Your task to perform on an android device: Go to Wikipedia Image 0: 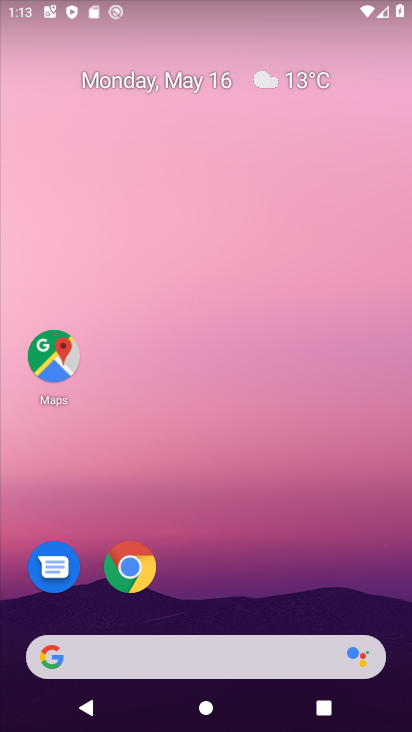
Step 0: click (128, 574)
Your task to perform on an android device: Go to Wikipedia Image 1: 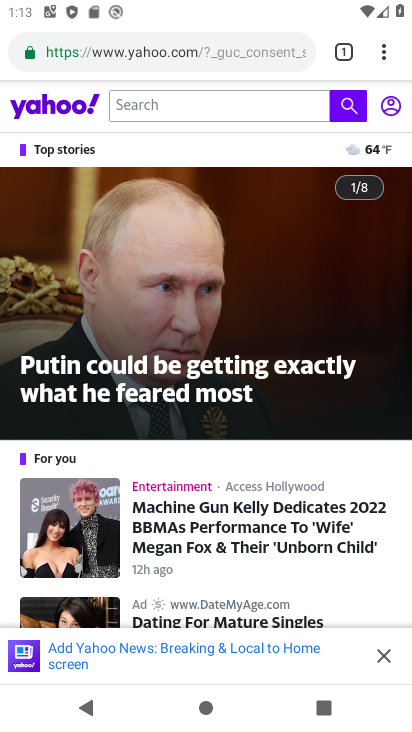
Step 1: drag from (378, 47) to (362, 116)
Your task to perform on an android device: Go to Wikipedia Image 2: 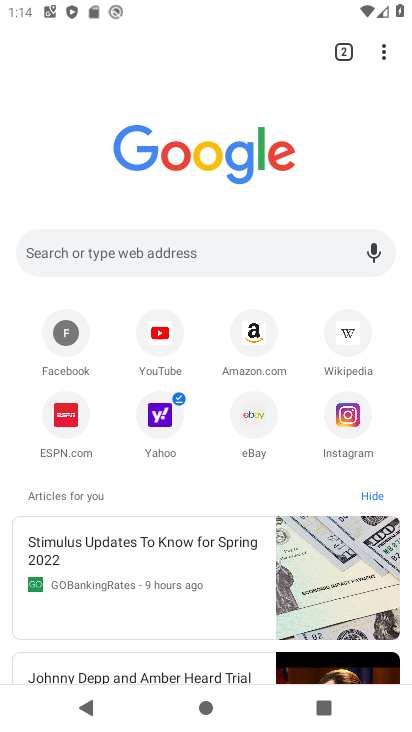
Step 2: click (347, 344)
Your task to perform on an android device: Go to Wikipedia Image 3: 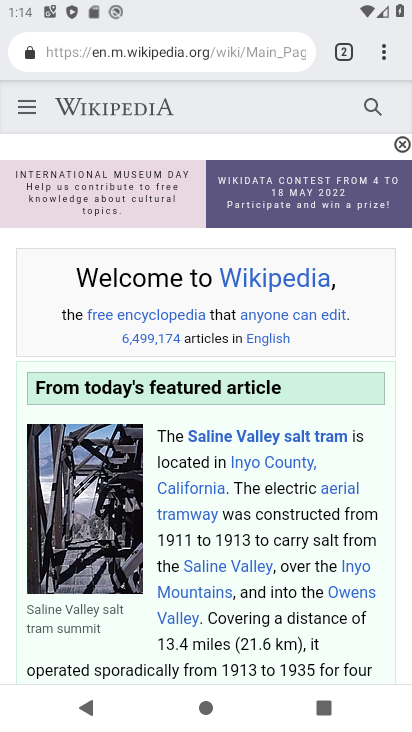
Step 3: task complete